Your task to perform on an android device: create a new album in the google photos Image 0: 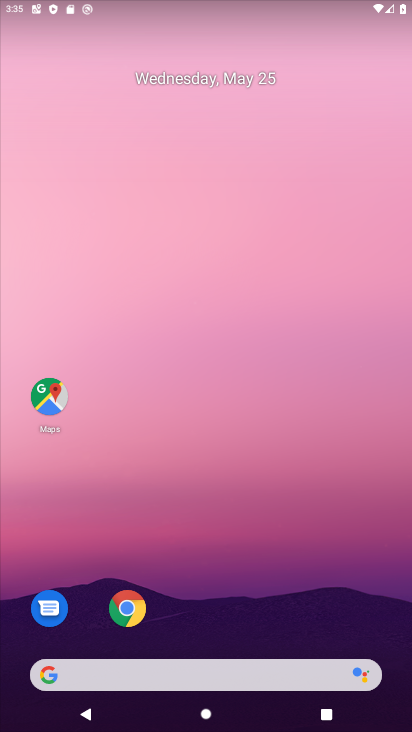
Step 0: drag from (222, 624) to (197, 120)
Your task to perform on an android device: create a new album in the google photos Image 1: 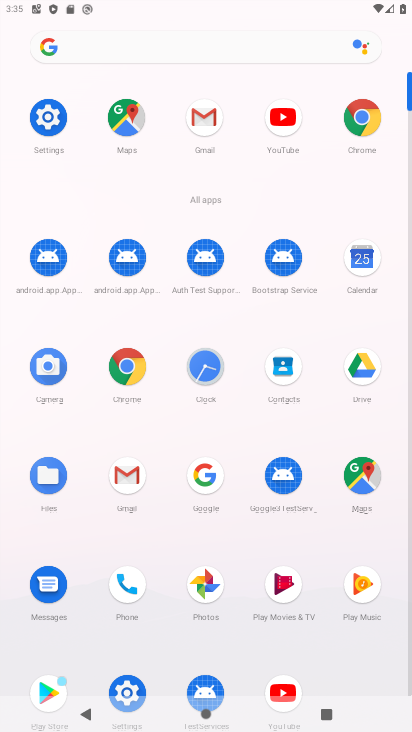
Step 1: click (204, 582)
Your task to perform on an android device: create a new album in the google photos Image 2: 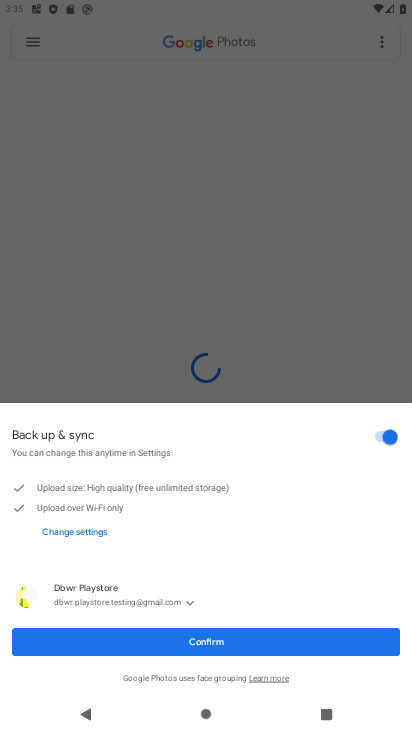
Step 2: click (117, 647)
Your task to perform on an android device: create a new album in the google photos Image 3: 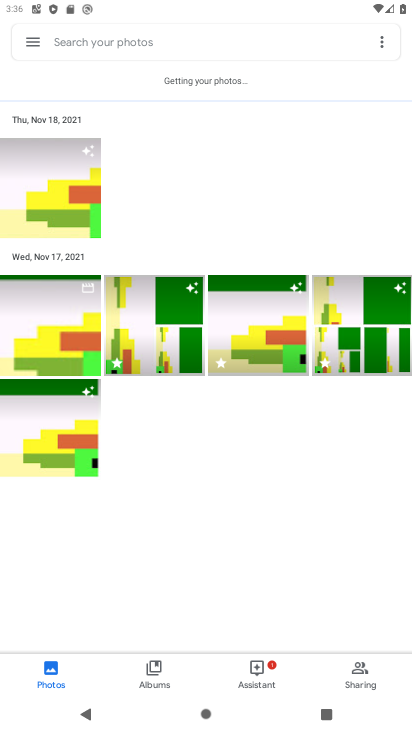
Step 3: click (90, 252)
Your task to perform on an android device: create a new album in the google photos Image 4: 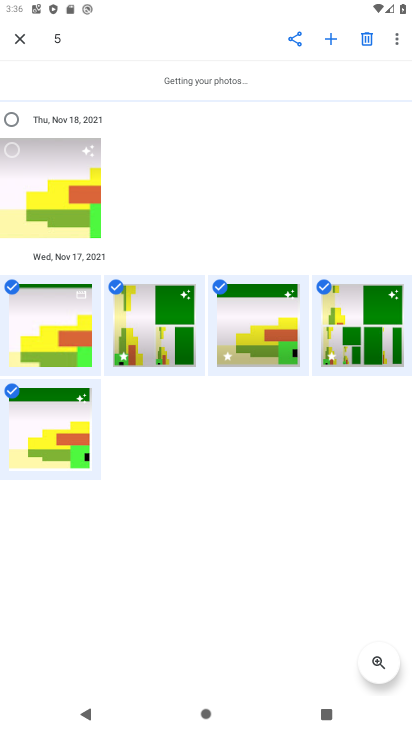
Step 4: click (335, 37)
Your task to perform on an android device: create a new album in the google photos Image 5: 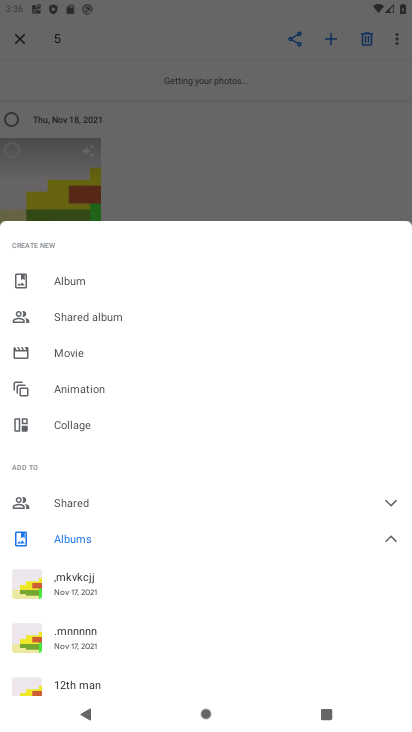
Step 5: click (178, 286)
Your task to perform on an android device: create a new album in the google photos Image 6: 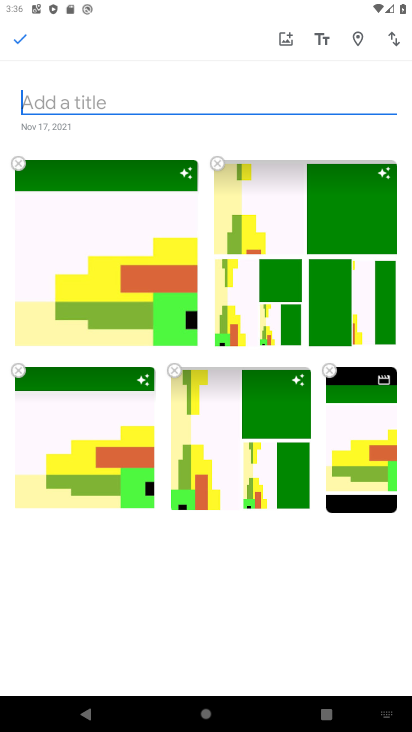
Step 6: type "lou"
Your task to perform on an android device: create a new album in the google photos Image 7: 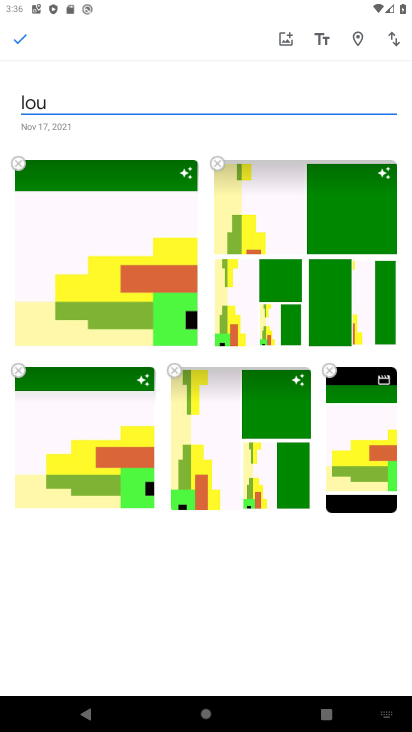
Step 7: click (18, 37)
Your task to perform on an android device: create a new album in the google photos Image 8: 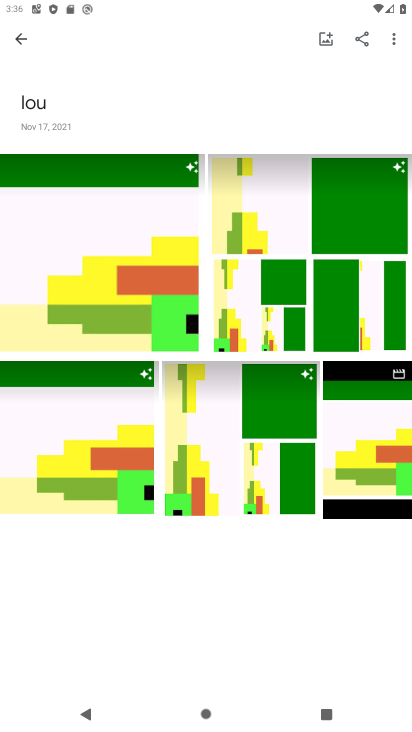
Step 8: task complete